Your task to perform on an android device: Open Youtube and go to the subscriptions tab Image 0: 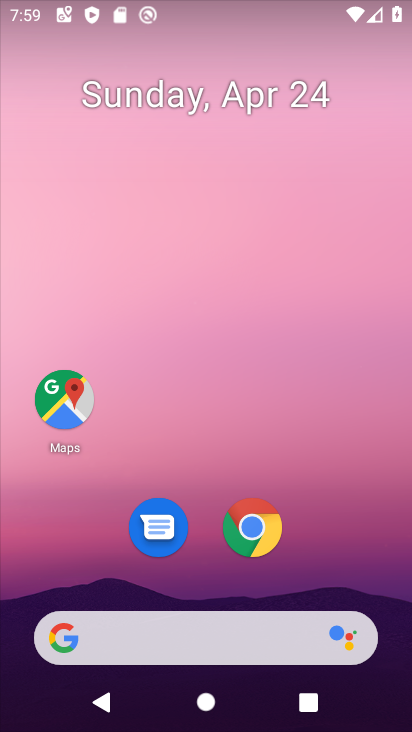
Step 0: drag from (397, 608) to (225, 12)
Your task to perform on an android device: Open Youtube and go to the subscriptions tab Image 1: 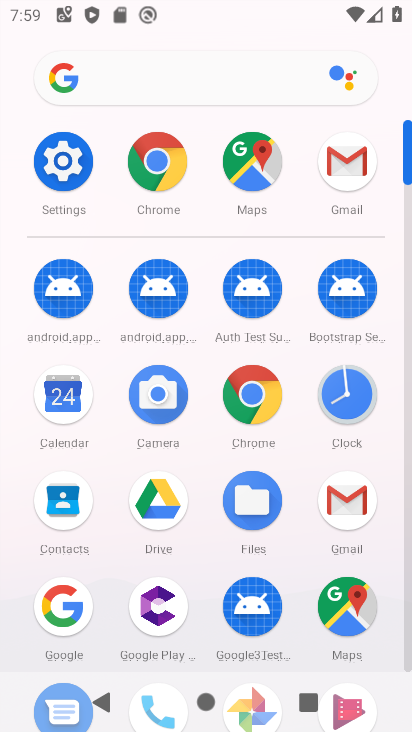
Step 1: click (410, 668)
Your task to perform on an android device: Open Youtube and go to the subscriptions tab Image 2: 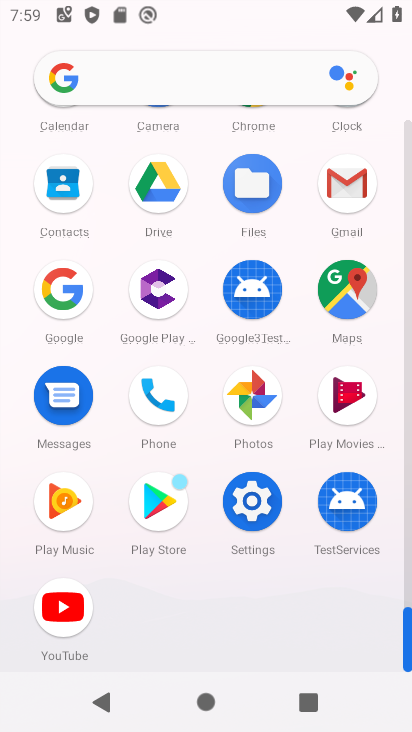
Step 2: click (74, 594)
Your task to perform on an android device: Open Youtube and go to the subscriptions tab Image 3: 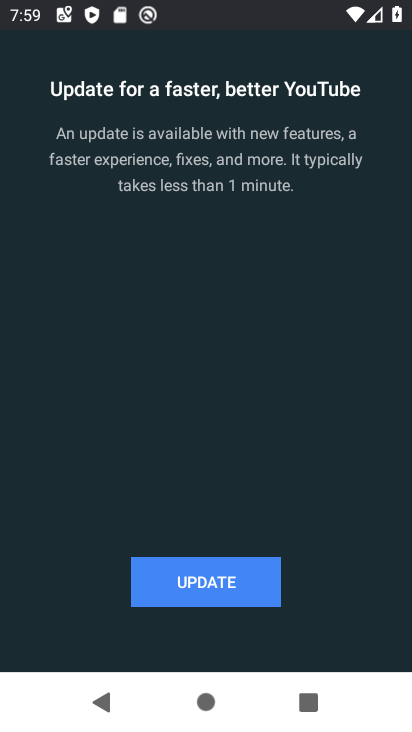
Step 3: click (145, 592)
Your task to perform on an android device: Open Youtube and go to the subscriptions tab Image 4: 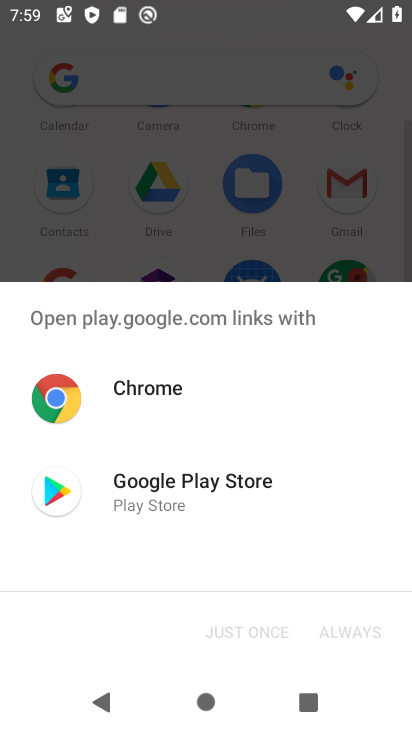
Step 4: click (167, 509)
Your task to perform on an android device: Open Youtube and go to the subscriptions tab Image 5: 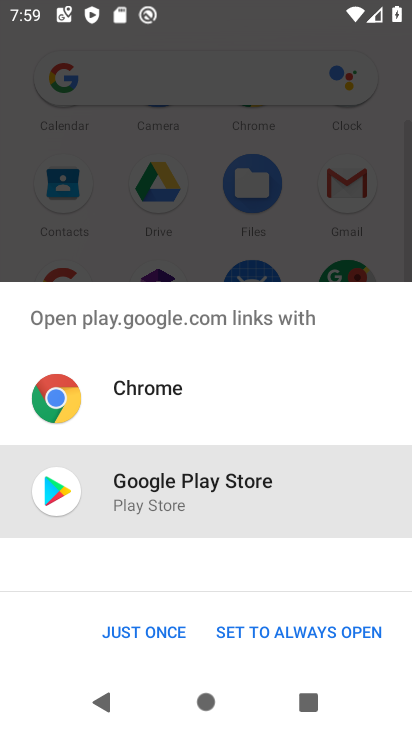
Step 5: click (117, 629)
Your task to perform on an android device: Open Youtube and go to the subscriptions tab Image 6: 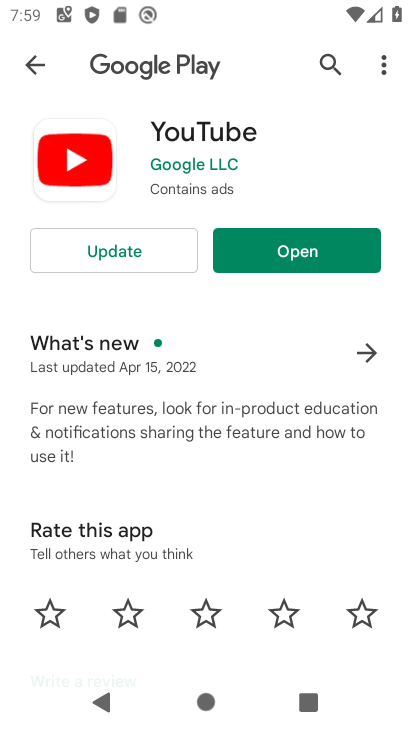
Step 6: click (124, 246)
Your task to perform on an android device: Open Youtube and go to the subscriptions tab Image 7: 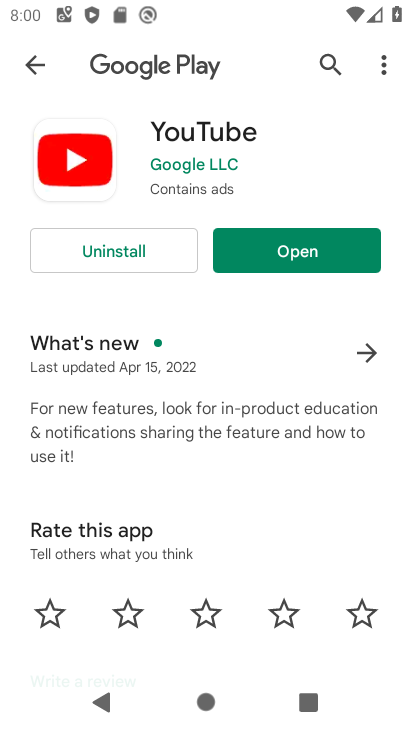
Step 7: click (327, 268)
Your task to perform on an android device: Open Youtube and go to the subscriptions tab Image 8: 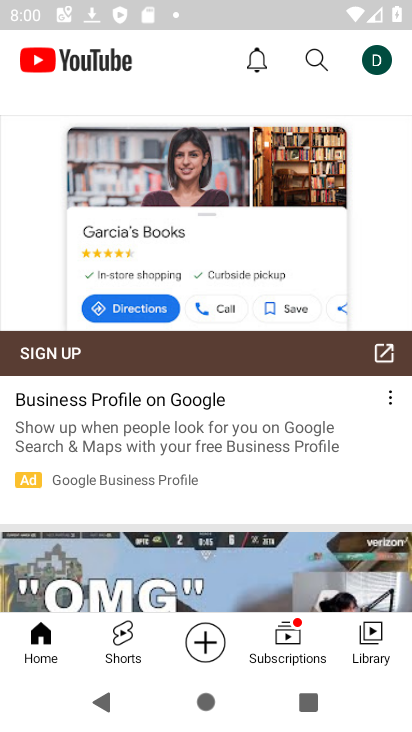
Step 8: click (279, 636)
Your task to perform on an android device: Open Youtube and go to the subscriptions tab Image 9: 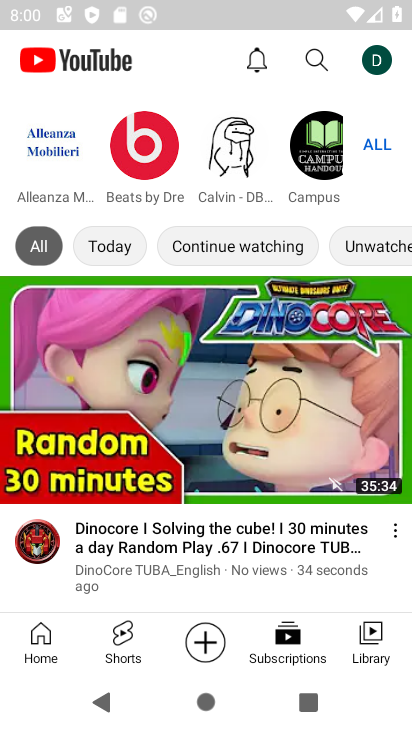
Step 9: task complete